Your task to perform on an android device: change notifications settings Image 0: 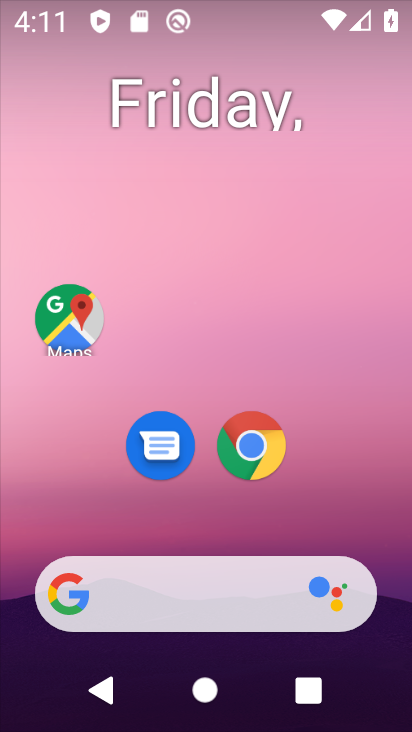
Step 0: press home button
Your task to perform on an android device: change notifications settings Image 1: 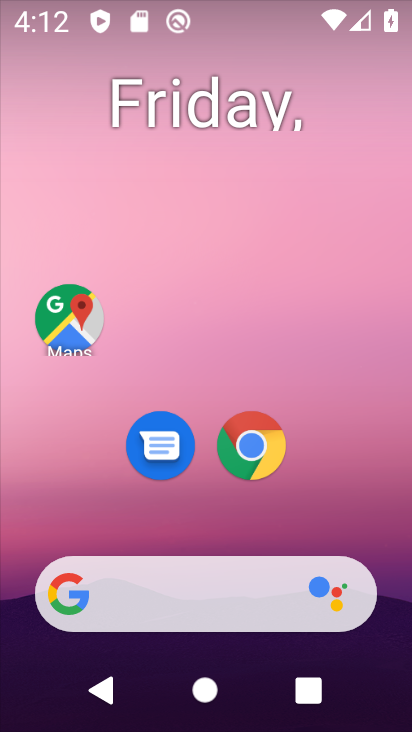
Step 1: drag from (348, 515) to (270, 160)
Your task to perform on an android device: change notifications settings Image 2: 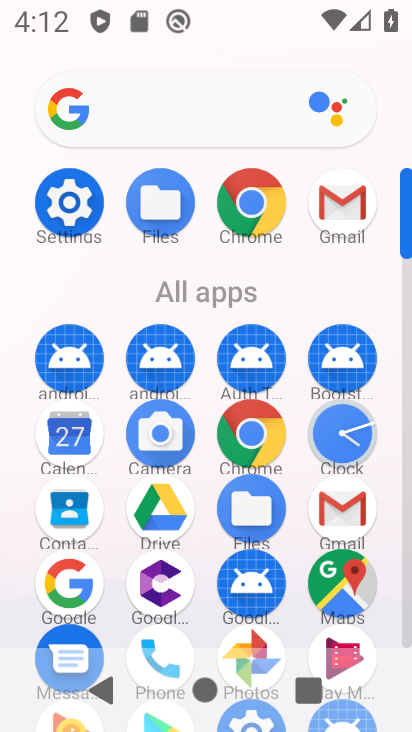
Step 2: click (69, 211)
Your task to perform on an android device: change notifications settings Image 3: 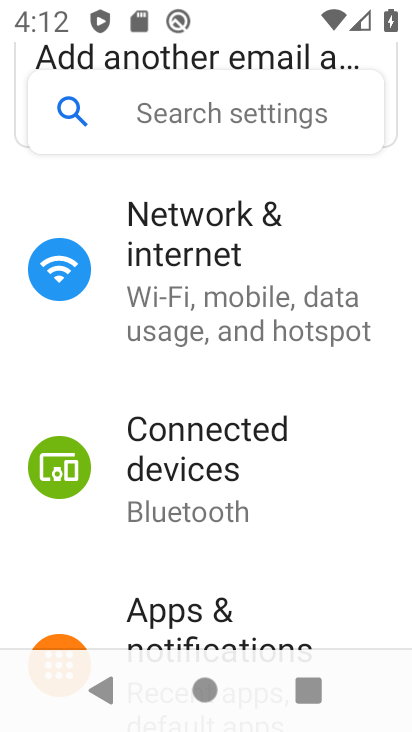
Step 3: click (190, 608)
Your task to perform on an android device: change notifications settings Image 4: 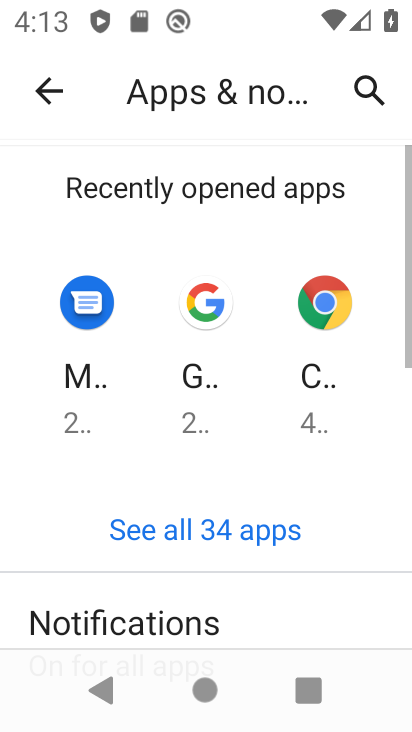
Step 4: click (127, 609)
Your task to perform on an android device: change notifications settings Image 5: 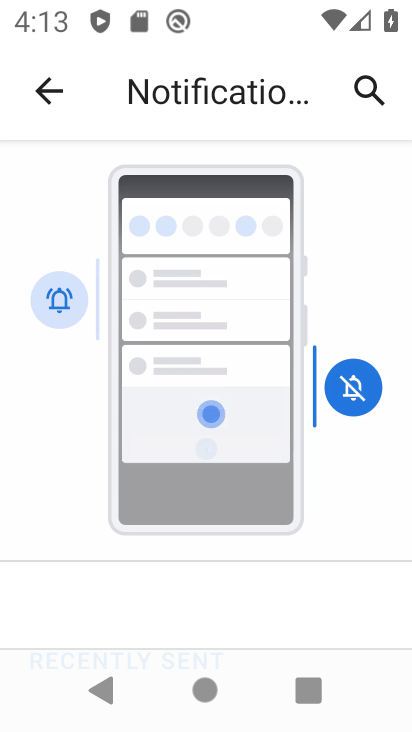
Step 5: drag from (333, 531) to (324, 143)
Your task to perform on an android device: change notifications settings Image 6: 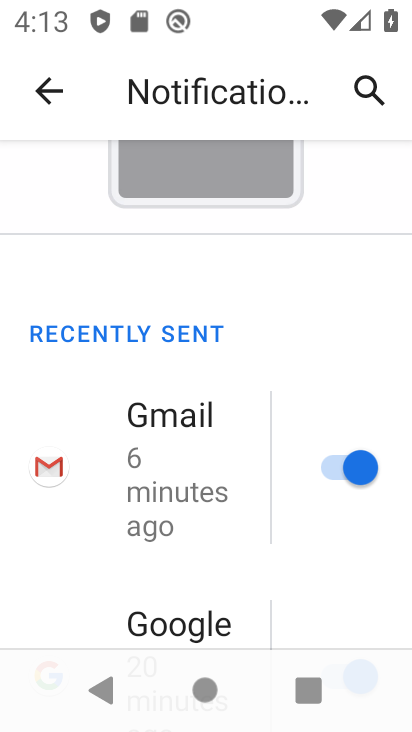
Step 6: click (314, 471)
Your task to perform on an android device: change notifications settings Image 7: 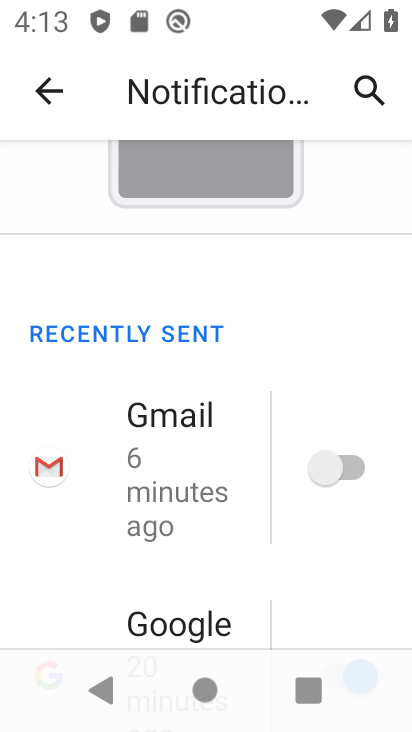
Step 7: task complete